Your task to perform on an android device: turn notification dots on Image 0: 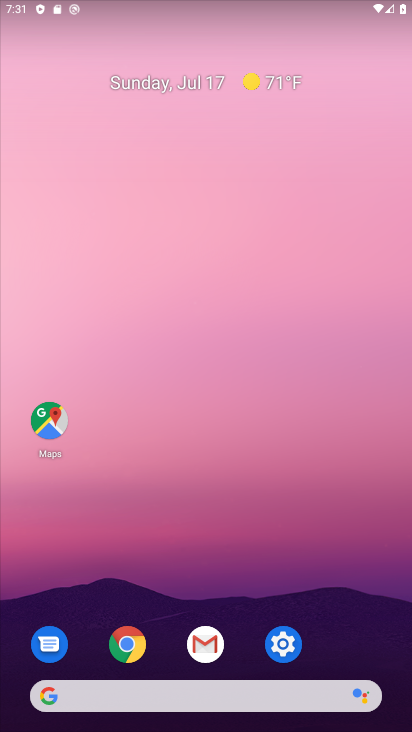
Step 0: click (290, 644)
Your task to perform on an android device: turn notification dots on Image 1: 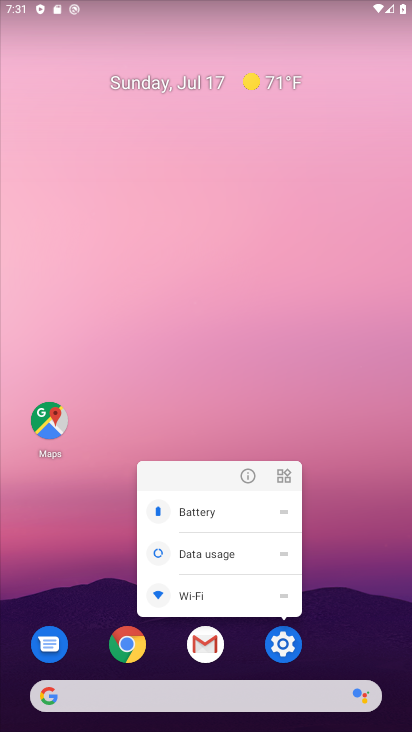
Step 1: click (279, 644)
Your task to perform on an android device: turn notification dots on Image 2: 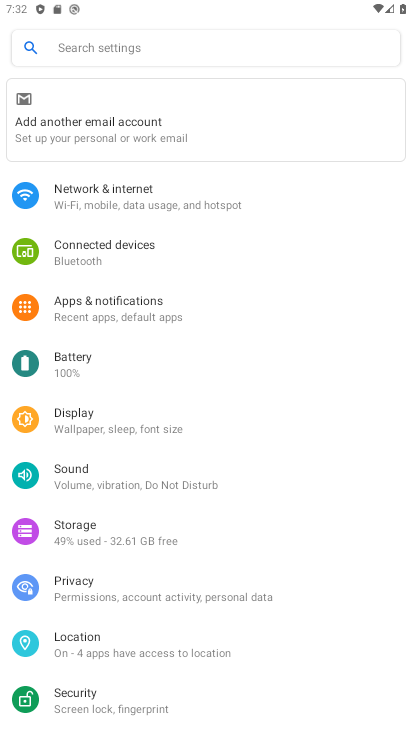
Step 2: click (99, 45)
Your task to perform on an android device: turn notification dots on Image 3: 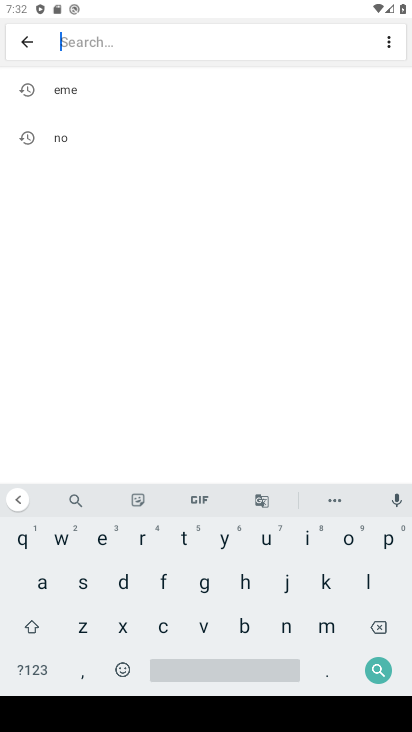
Step 3: click (54, 136)
Your task to perform on an android device: turn notification dots on Image 4: 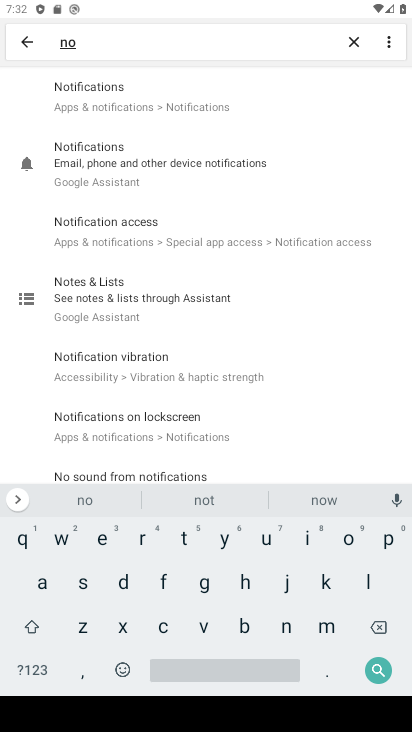
Step 4: click (137, 94)
Your task to perform on an android device: turn notification dots on Image 5: 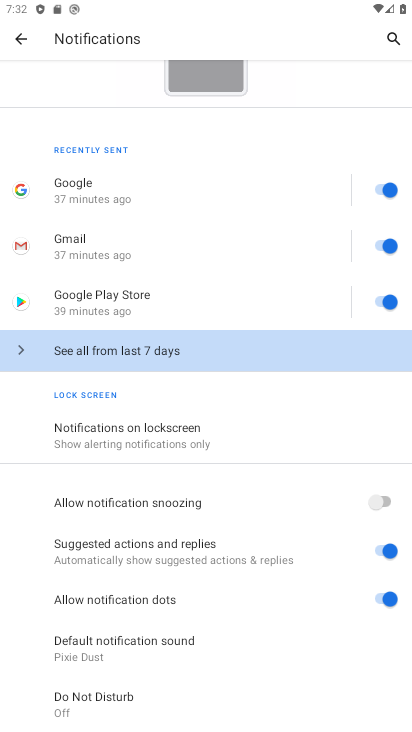
Step 5: click (381, 598)
Your task to perform on an android device: turn notification dots on Image 6: 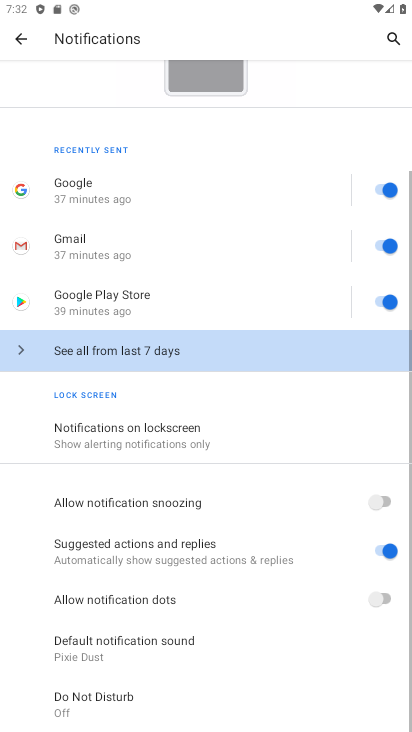
Step 6: click (381, 598)
Your task to perform on an android device: turn notification dots on Image 7: 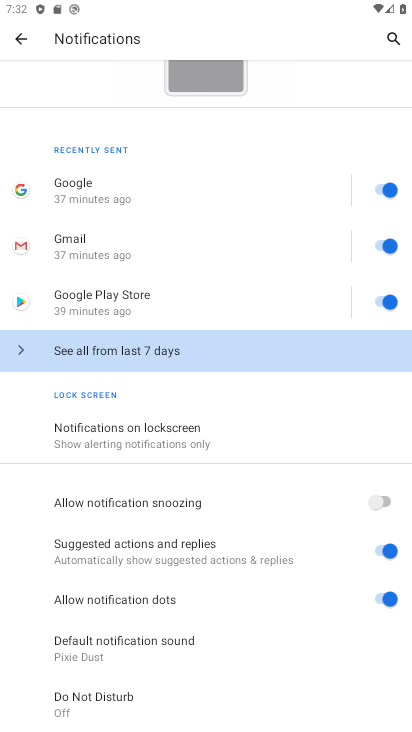
Step 7: task complete